Your task to perform on an android device: Open calendar and show me the second week of next month Image 0: 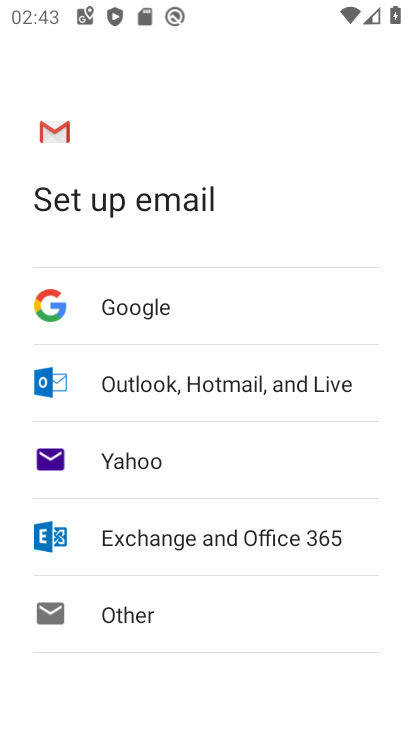
Step 0: press home button
Your task to perform on an android device: Open calendar and show me the second week of next month Image 1: 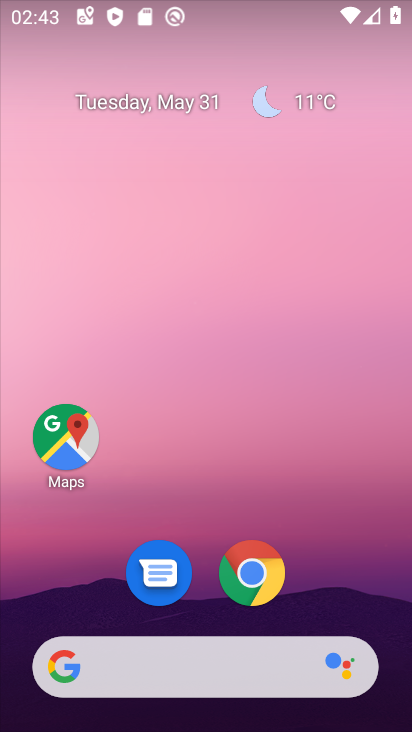
Step 1: drag from (377, 613) to (314, 97)
Your task to perform on an android device: Open calendar and show me the second week of next month Image 2: 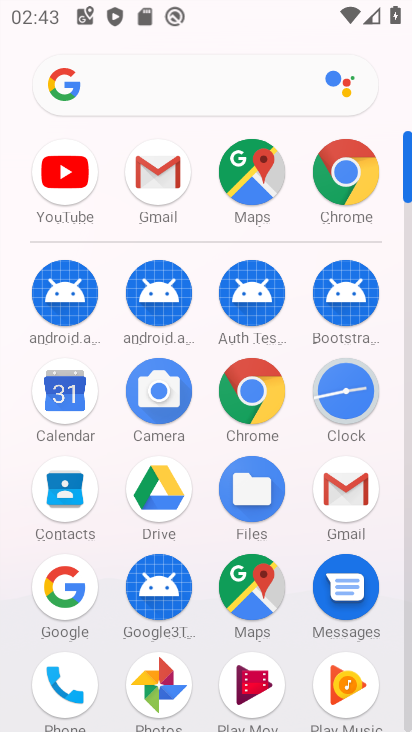
Step 2: click (80, 385)
Your task to perform on an android device: Open calendar and show me the second week of next month Image 3: 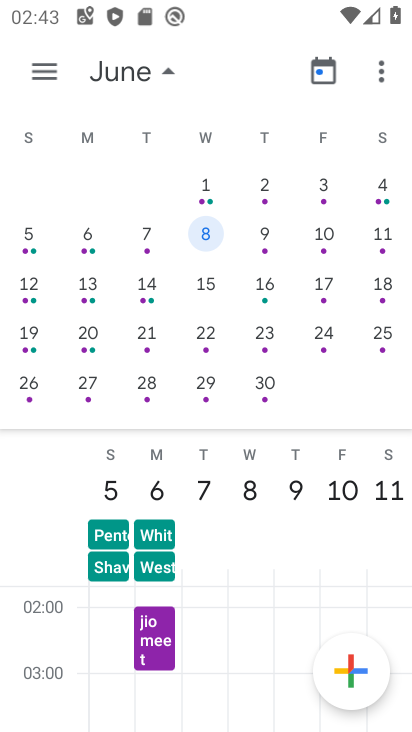
Step 3: click (215, 231)
Your task to perform on an android device: Open calendar and show me the second week of next month Image 4: 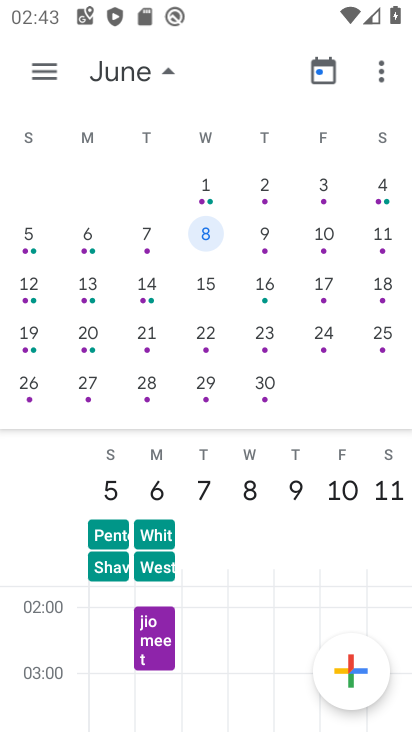
Step 4: task complete